Your task to perform on an android device: Is it going to rain this weekend? Image 0: 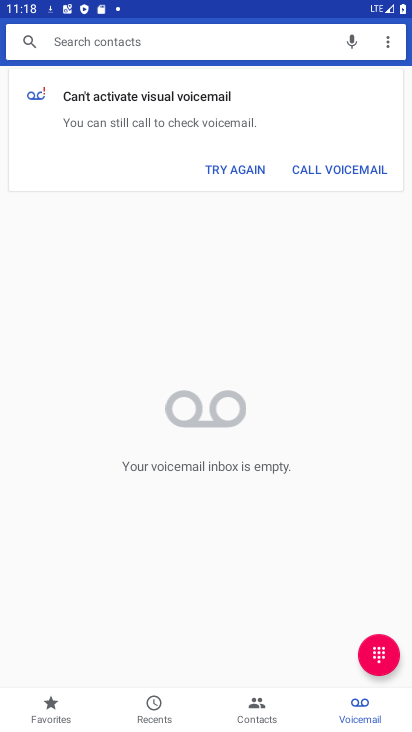
Step 0: press home button
Your task to perform on an android device: Is it going to rain this weekend? Image 1: 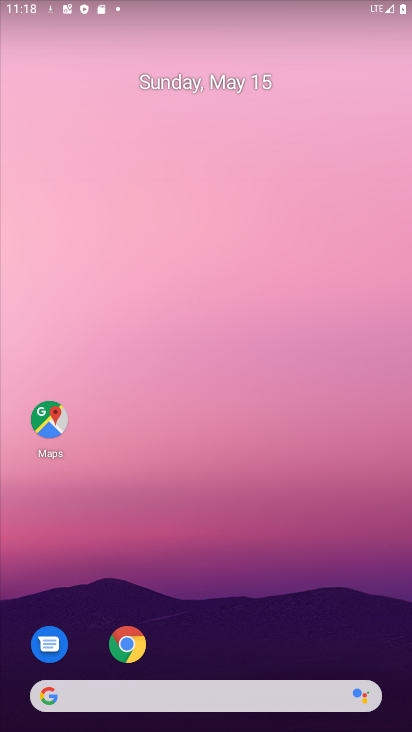
Step 1: drag from (260, 714) to (181, 200)
Your task to perform on an android device: Is it going to rain this weekend? Image 2: 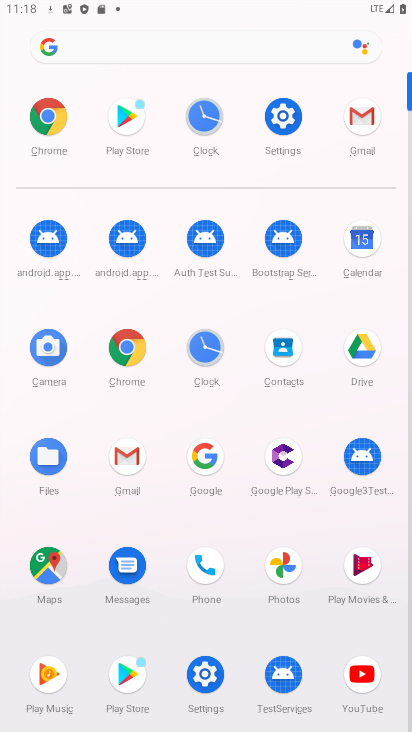
Step 2: click (83, 44)
Your task to perform on an android device: Is it going to rain this weekend? Image 3: 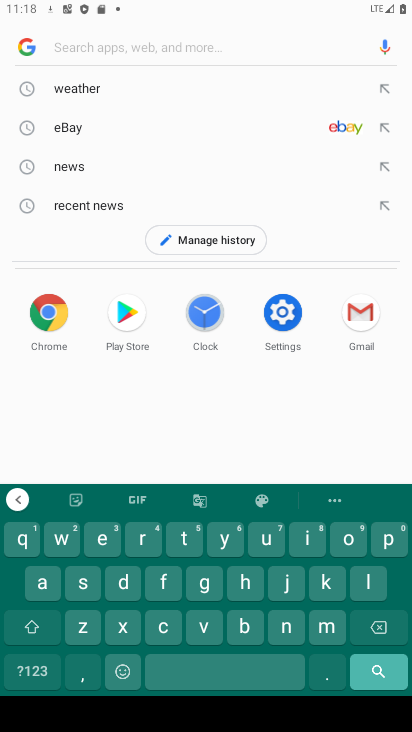
Step 3: click (108, 92)
Your task to perform on an android device: Is it going to rain this weekend? Image 4: 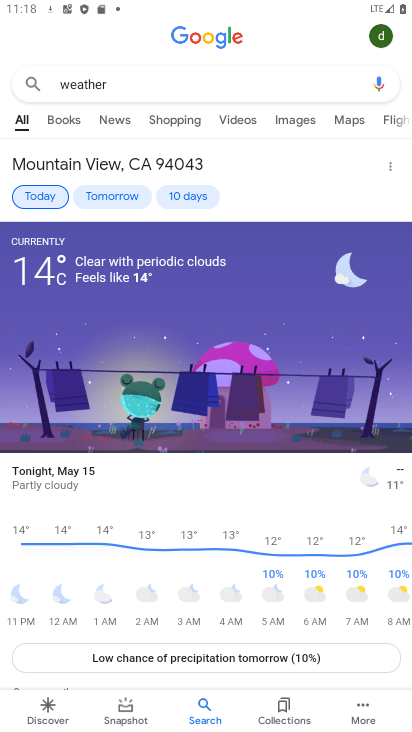
Step 4: task complete